Your task to perform on an android device: Check the news Image 0: 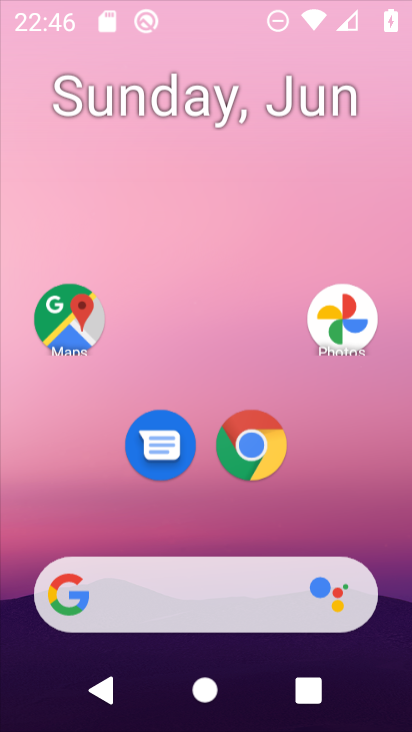
Step 0: press home button
Your task to perform on an android device: Check the news Image 1: 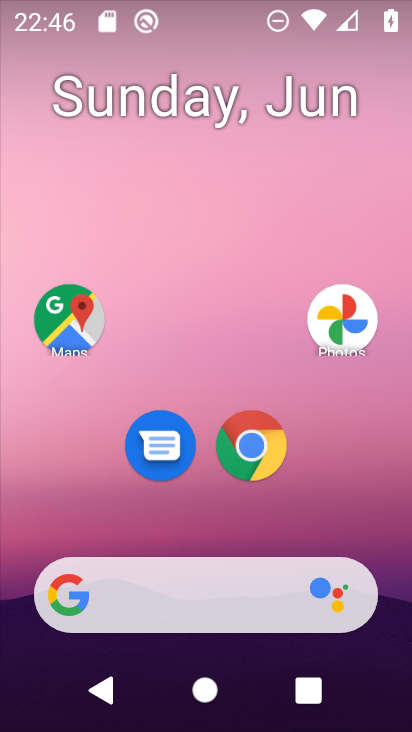
Step 1: click (60, 592)
Your task to perform on an android device: Check the news Image 2: 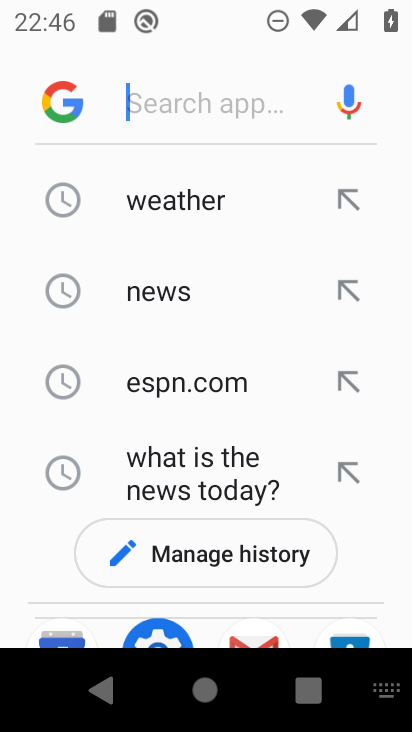
Step 2: click (178, 295)
Your task to perform on an android device: Check the news Image 3: 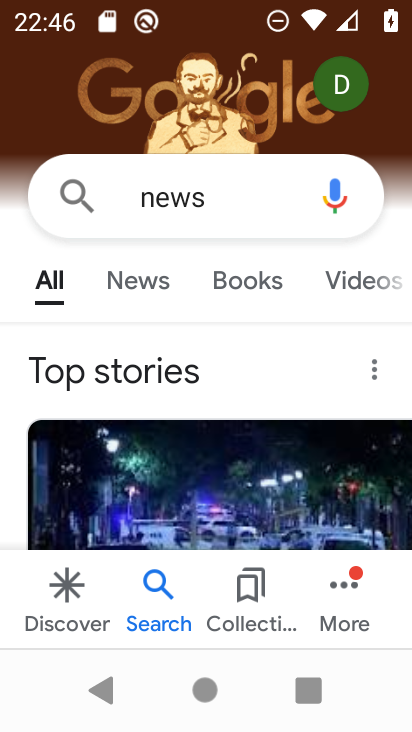
Step 3: task complete